Your task to perform on an android device: change notification settings in the gmail app Image 0: 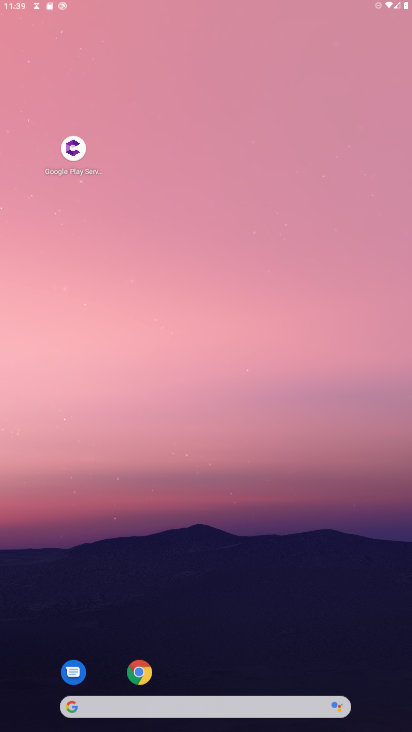
Step 0: press home button
Your task to perform on an android device: change notification settings in the gmail app Image 1: 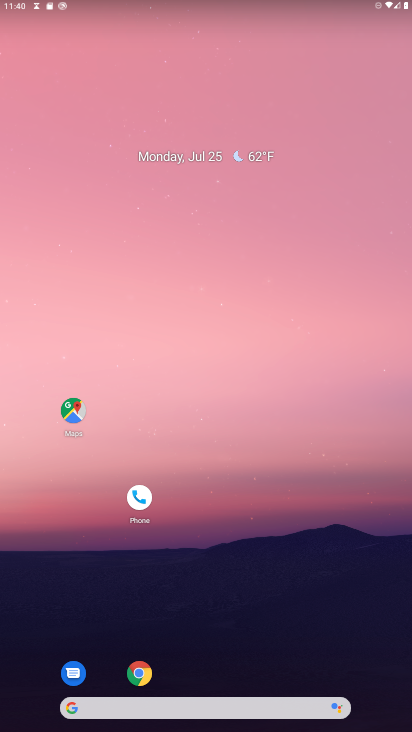
Step 1: press home button
Your task to perform on an android device: change notification settings in the gmail app Image 2: 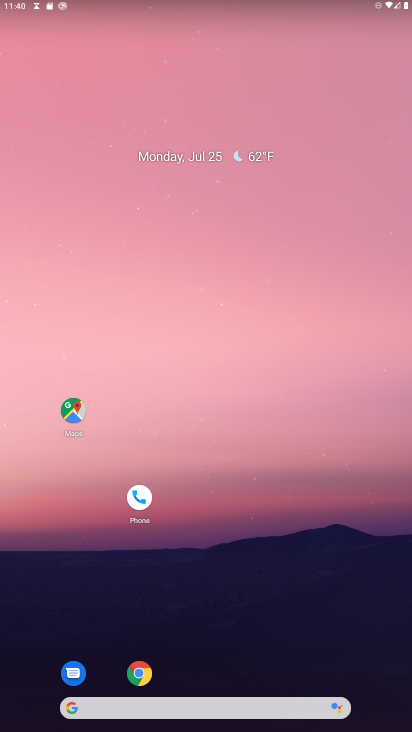
Step 2: drag from (321, 609) to (264, 105)
Your task to perform on an android device: change notification settings in the gmail app Image 3: 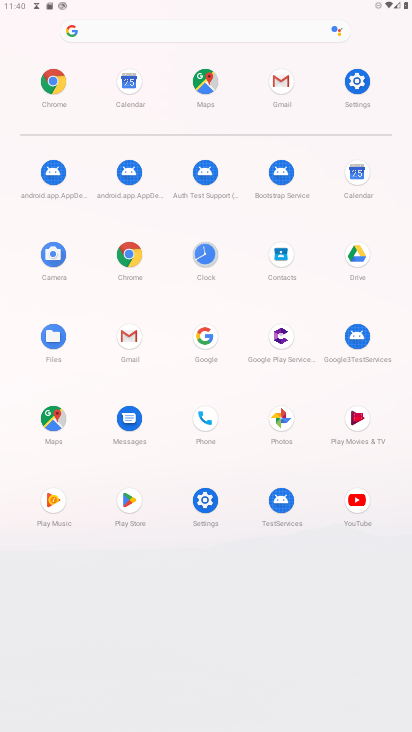
Step 3: click (282, 85)
Your task to perform on an android device: change notification settings in the gmail app Image 4: 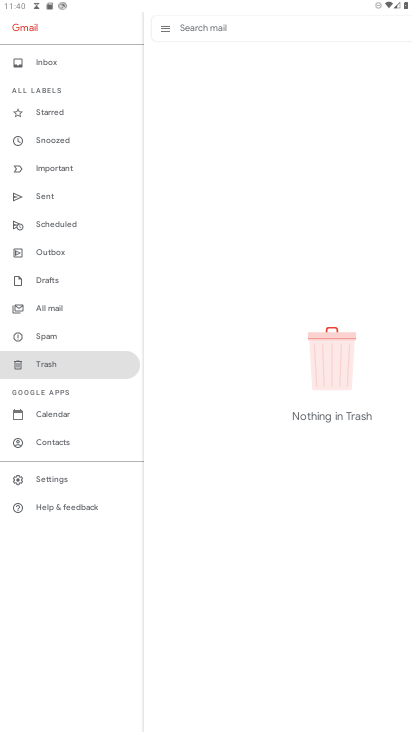
Step 4: click (60, 475)
Your task to perform on an android device: change notification settings in the gmail app Image 5: 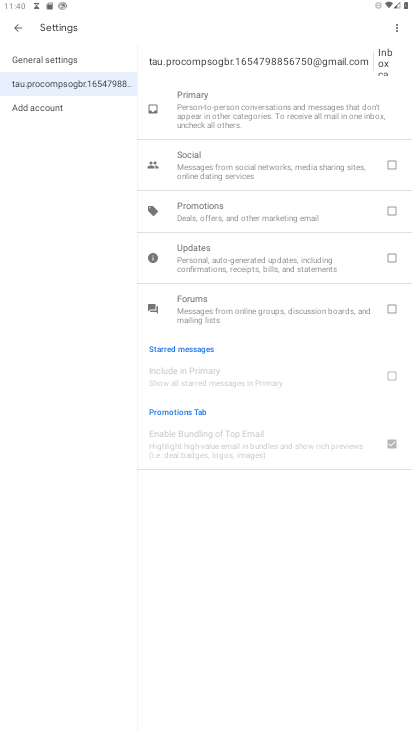
Step 5: click (48, 84)
Your task to perform on an android device: change notification settings in the gmail app Image 6: 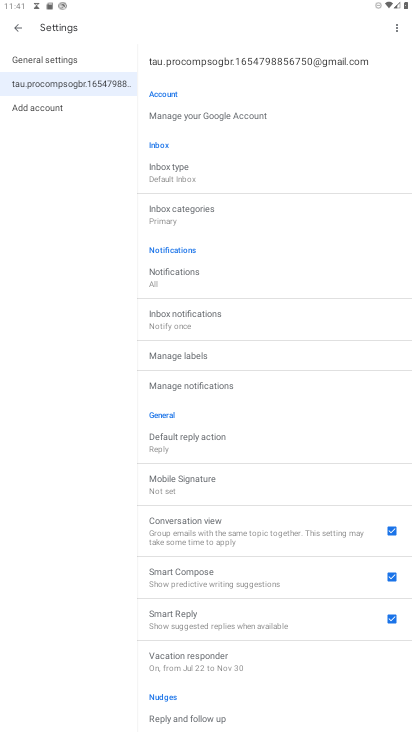
Step 6: click (171, 388)
Your task to perform on an android device: change notification settings in the gmail app Image 7: 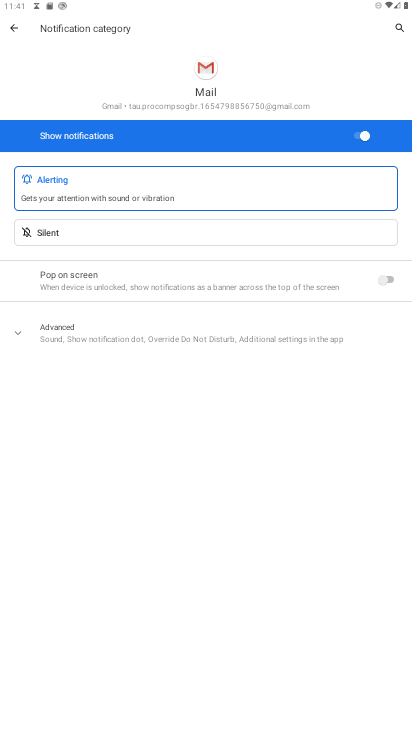
Step 7: click (370, 136)
Your task to perform on an android device: change notification settings in the gmail app Image 8: 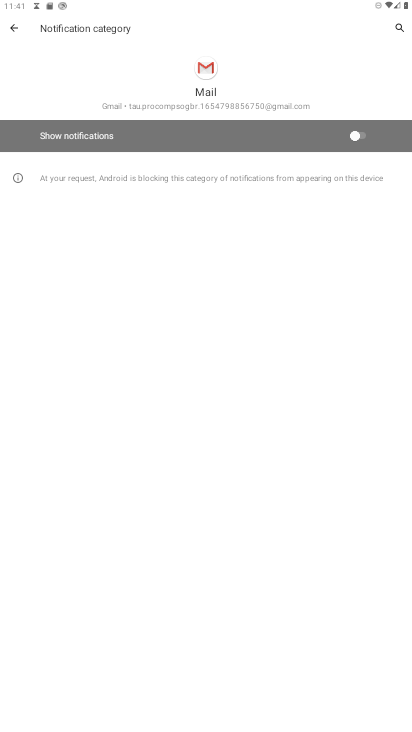
Step 8: task complete